Your task to perform on an android device: toggle javascript in the chrome app Image 0: 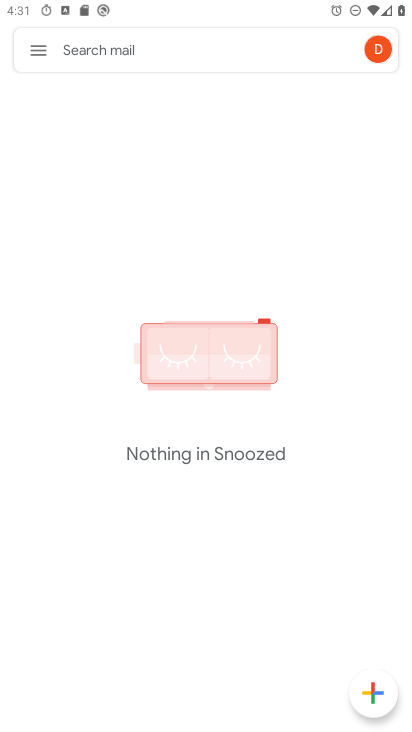
Step 0: press home button
Your task to perform on an android device: toggle javascript in the chrome app Image 1: 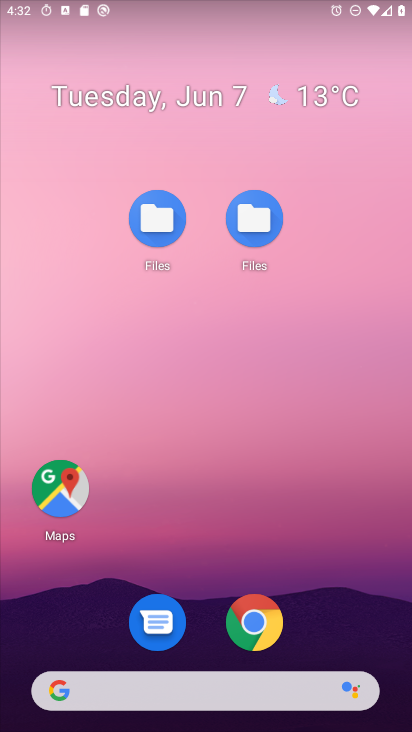
Step 1: click (266, 624)
Your task to perform on an android device: toggle javascript in the chrome app Image 2: 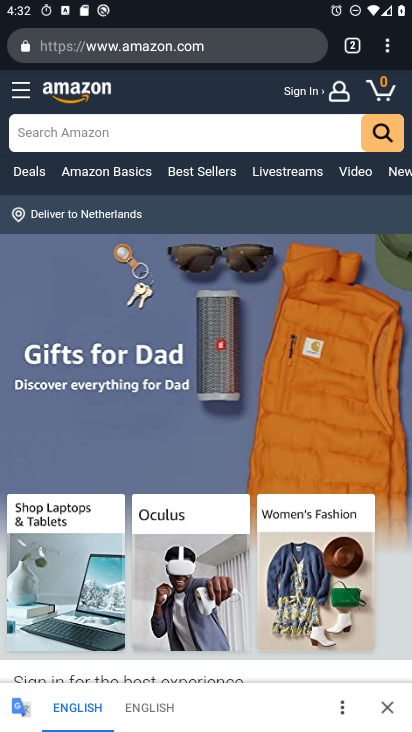
Step 2: click (401, 40)
Your task to perform on an android device: toggle javascript in the chrome app Image 3: 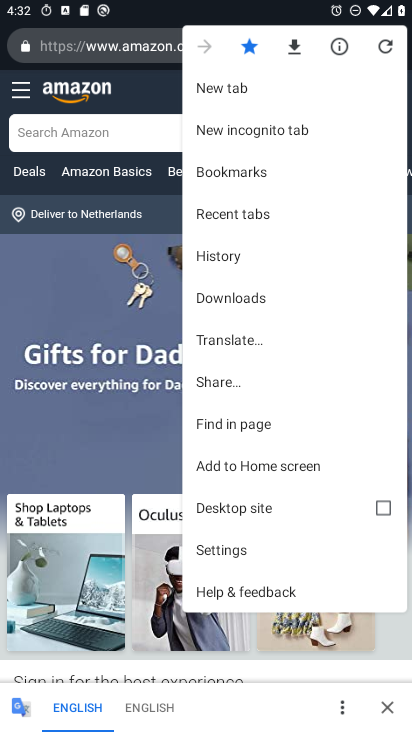
Step 3: click (234, 554)
Your task to perform on an android device: toggle javascript in the chrome app Image 4: 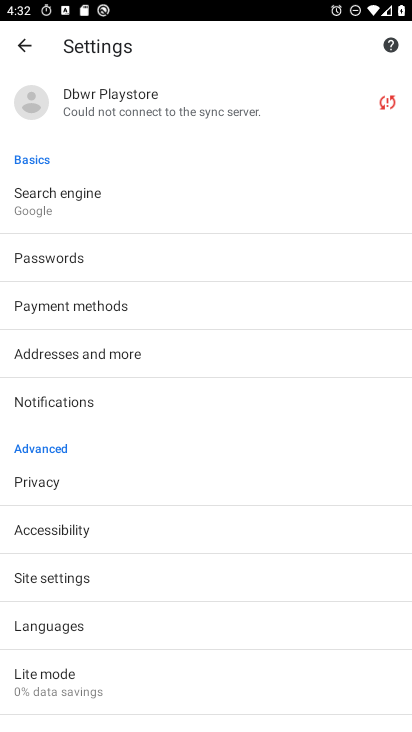
Step 4: click (86, 582)
Your task to perform on an android device: toggle javascript in the chrome app Image 5: 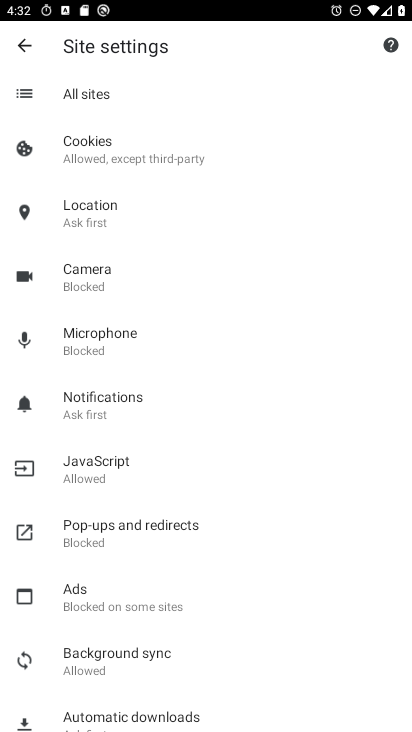
Step 5: click (87, 479)
Your task to perform on an android device: toggle javascript in the chrome app Image 6: 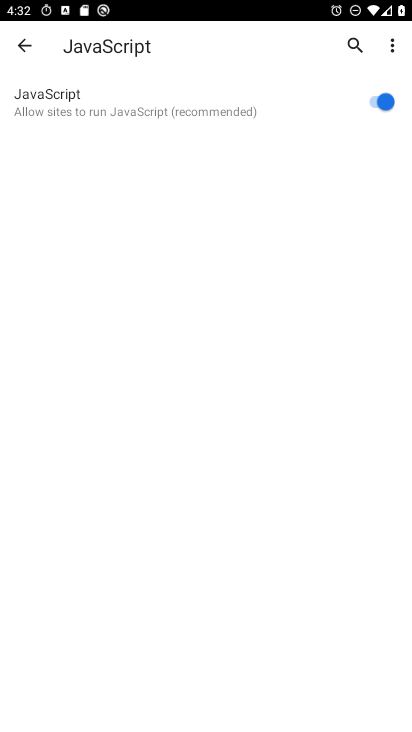
Step 6: click (388, 98)
Your task to perform on an android device: toggle javascript in the chrome app Image 7: 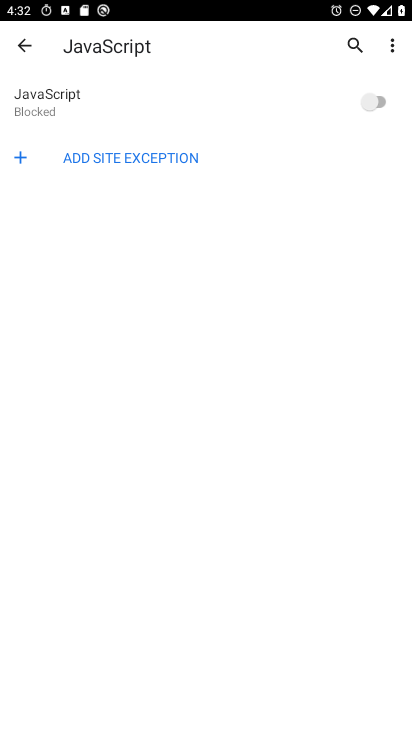
Step 7: task complete